Your task to perform on an android device: stop showing notifications on the lock screen Image 0: 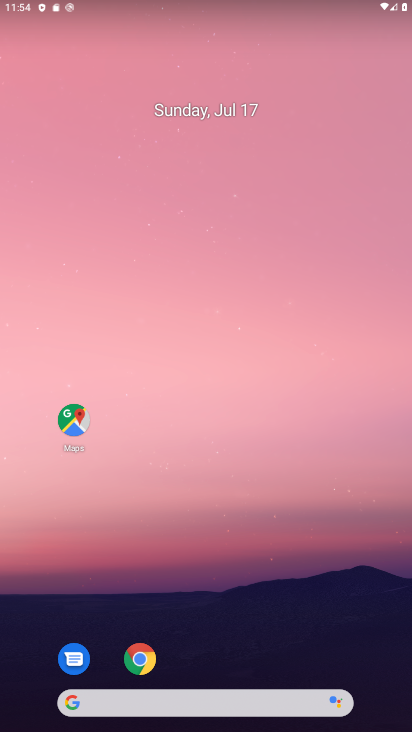
Step 0: drag from (273, 717) to (228, 145)
Your task to perform on an android device: stop showing notifications on the lock screen Image 1: 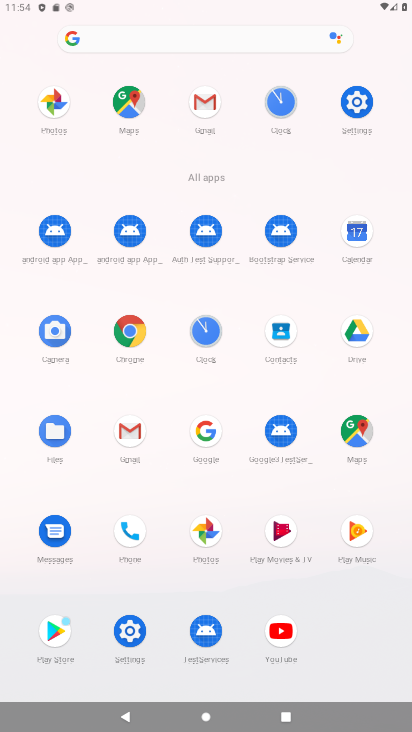
Step 1: drag from (236, 684) to (187, 271)
Your task to perform on an android device: stop showing notifications on the lock screen Image 2: 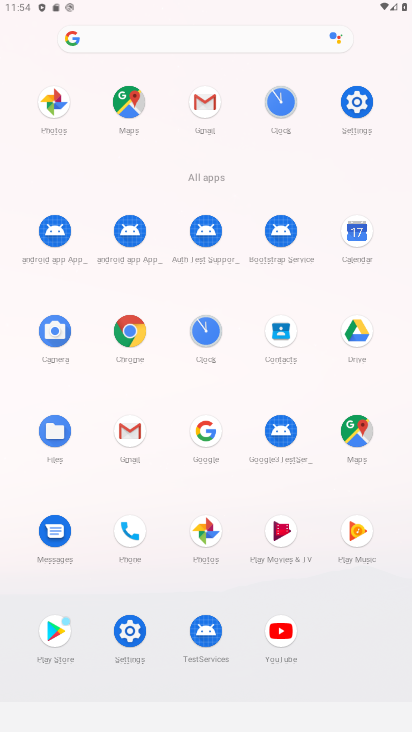
Step 2: click (349, 100)
Your task to perform on an android device: stop showing notifications on the lock screen Image 3: 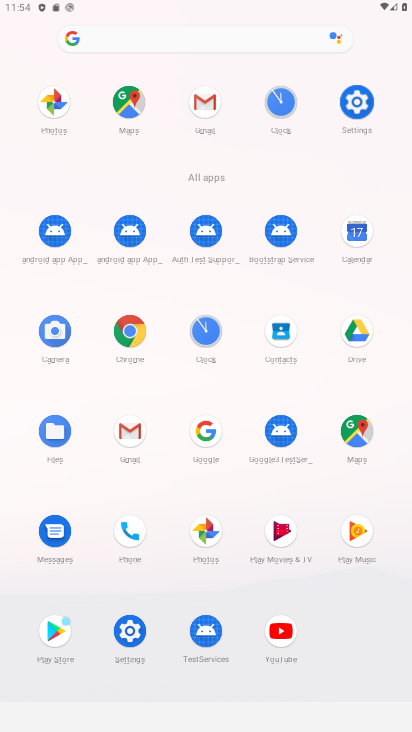
Step 3: click (348, 103)
Your task to perform on an android device: stop showing notifications on the lock screen Image 4: 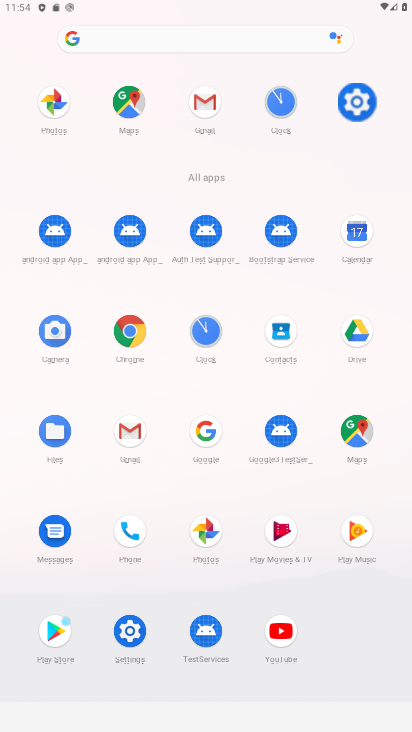
Step 4: click (369, 99)
Your task to perform on an android device: stop showing notifications on the lock screen Image 5: 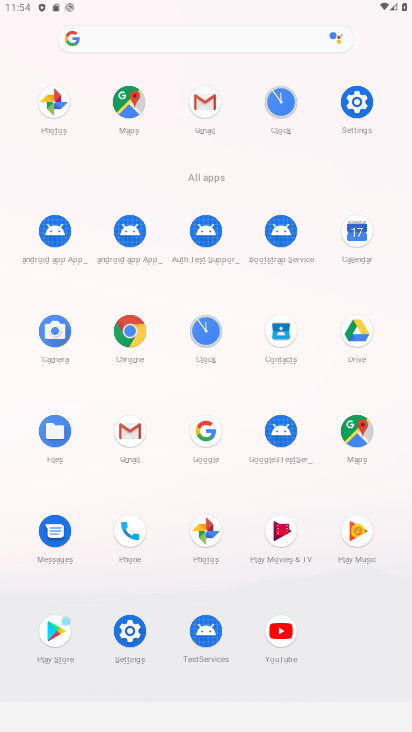
Step 5: click (351, 97)
Your task to perform on an android device: stop showing notifications on the lock screen Image 6: 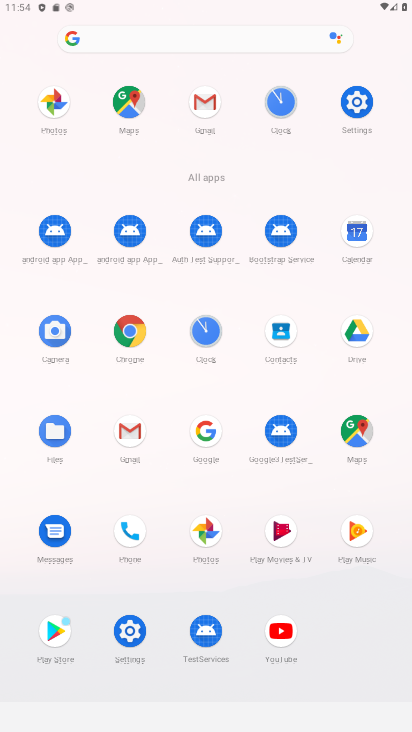
Step 6: click (352, 98)
Your task to perform on an android device: stop showing notifications on the lock screen Image 7: 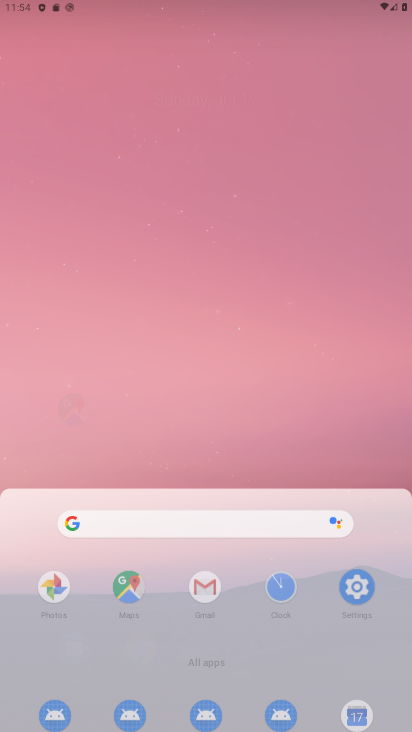
Step 7: click (352, 98)
Your task to perform on an android device: stop showing notifications on the lock screen Image 8: 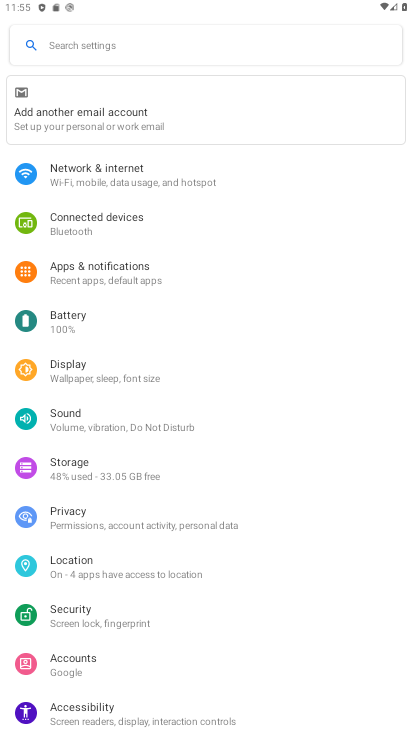
Step 8: click (88, 270)
Your task to perform on an android device: stop showing notifications on the lock screen Image 9: 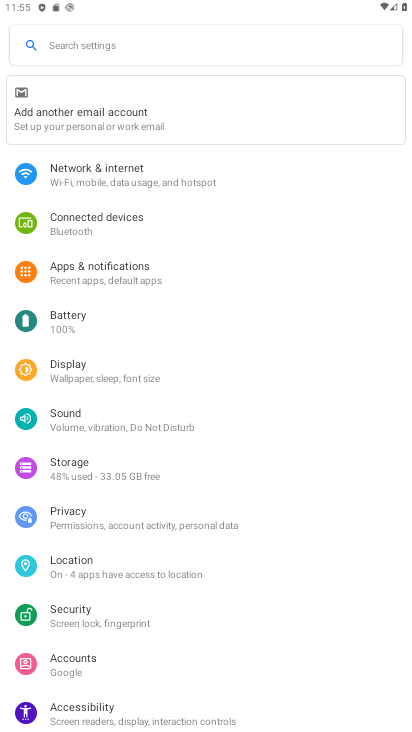
Step 9: click (88, 269)
Your task to perform on an android device: stop showing notifications on the lock screen Image 10: 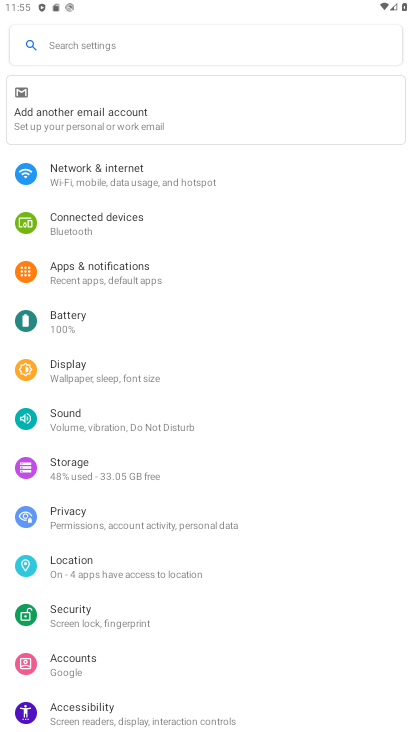
Step 10: click (92, 266)
Your task to perform on an android device: stop showing notifications on the lock screen Image 11: 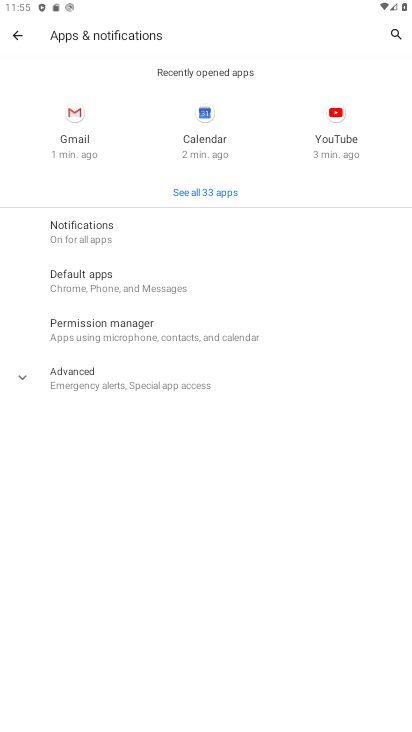
Step 11: click (79, 234)
Your task to perform on an android device: stop showing notifications on the lock screen Image 12: 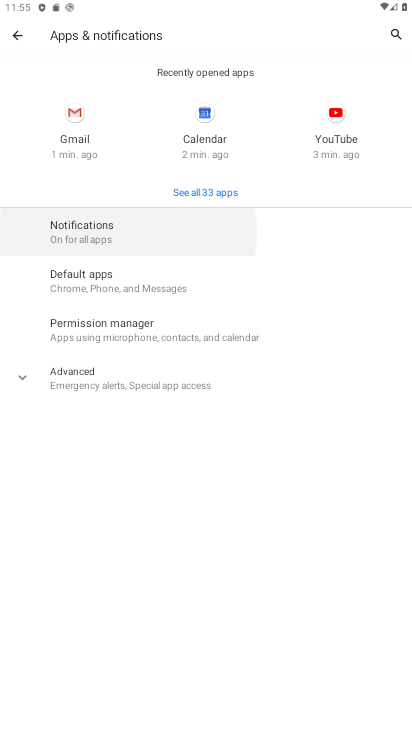
Step 12: click (80, 233)
Your task to perform on an android device: stop showing notifications on the lock screen Image 13: 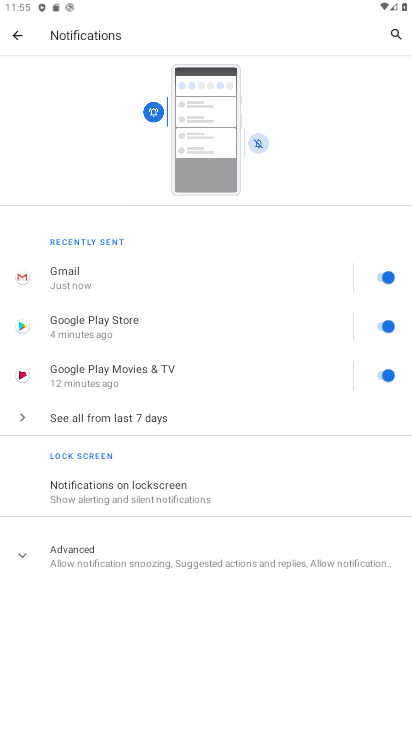
Step 13: click (75, 551)
Your task to perform on an android device: stop showing notifications on the lock screen Image 14: 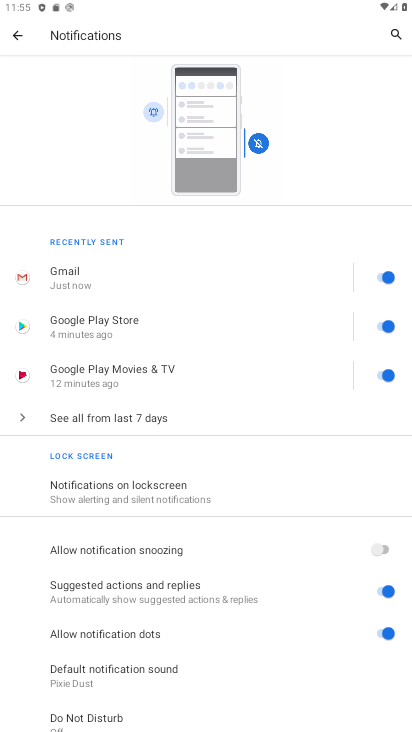
Step 14: drag from (159, 618) to (113, 289)
Your task to perform on an android device: stop showing notifications on the lock screen Image 15: 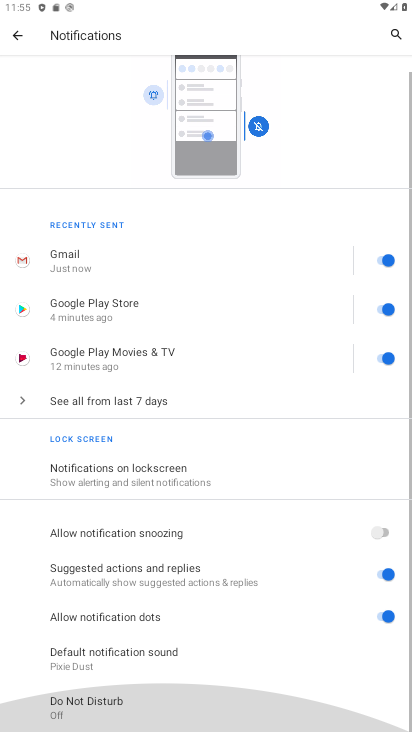
Step 15: drag from (242, 619) to (316, 351)
Your task to perform on an android device: stop showing notifications on the lock screen Image 16: 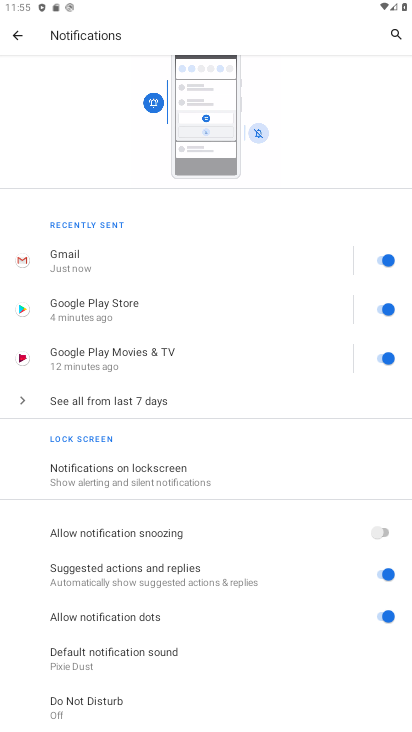
Step 16: click (142, 467)
Your task to perform on an android device: stop showing notifications on the lock screen Image 17: 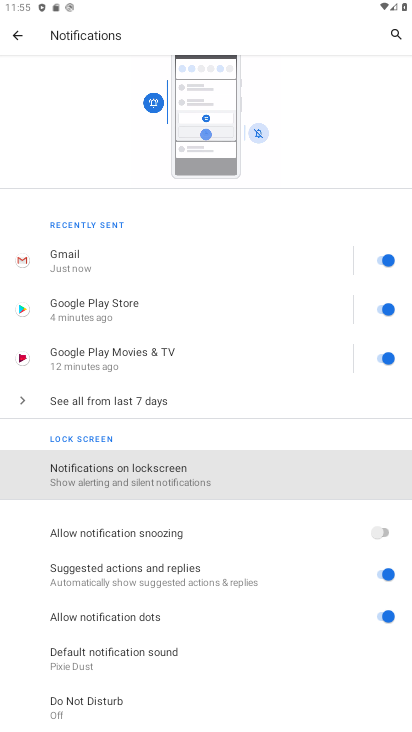
Step 17: click (142, 466)
Your task to perform on an android device: stop showing notifications on the lock screen Image 18: 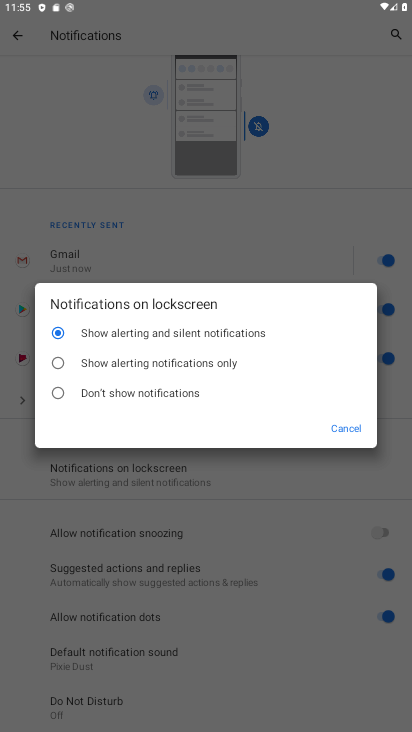
Step 18: click (53, 360)
Your task to perform on an android device: stop showing notifications on the lock screen Image 19: 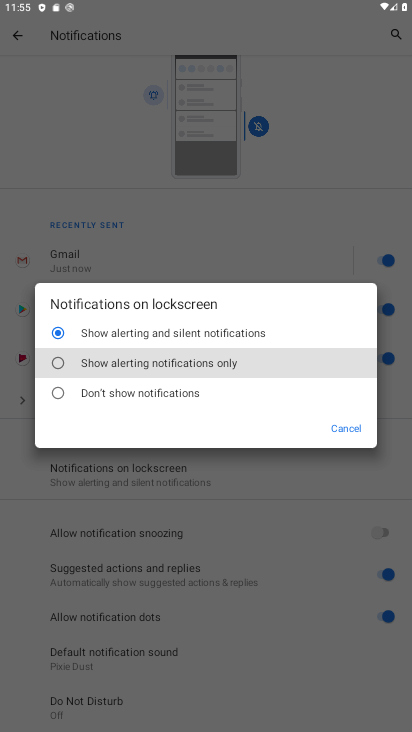
Step 19: click (53, 360)
Your task to perform on an android device: stop showing notifications on the lock screen Image 20: 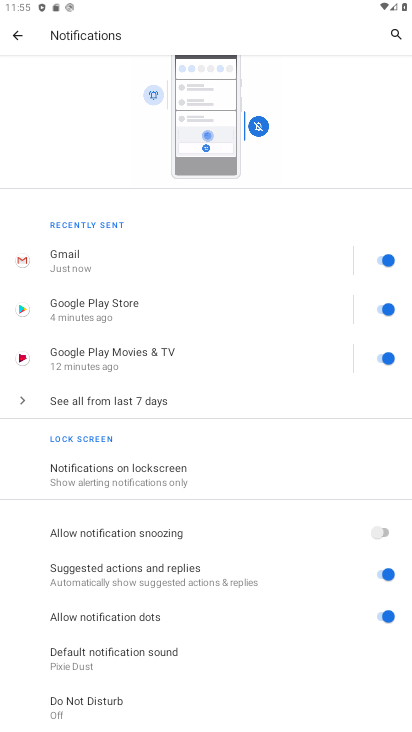
Step 20: click (111, 473)
Your task to perform on an android device: stop showing notifications on the lock screen Image 21: 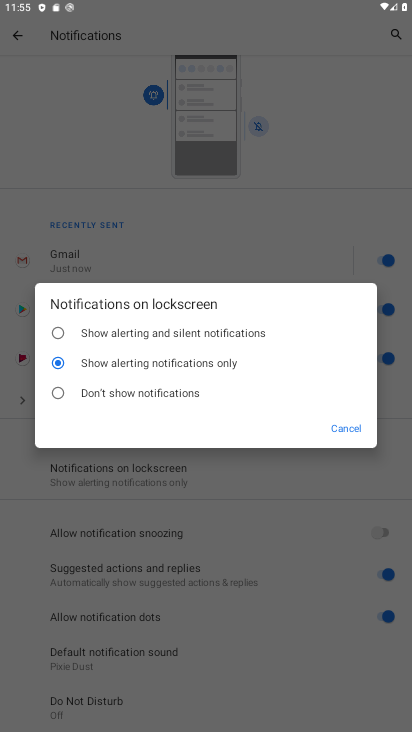
Step 21: click (47, 391)
Your task to perform on an android device: stop showing notifications on the lock screen Image 22: 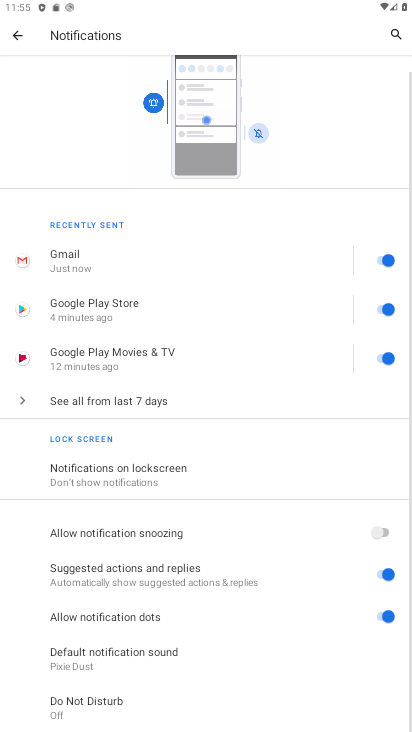
Step 22: task complete